Your task to perform on an android device: Open the calendar and show me this week's events? Image 0: 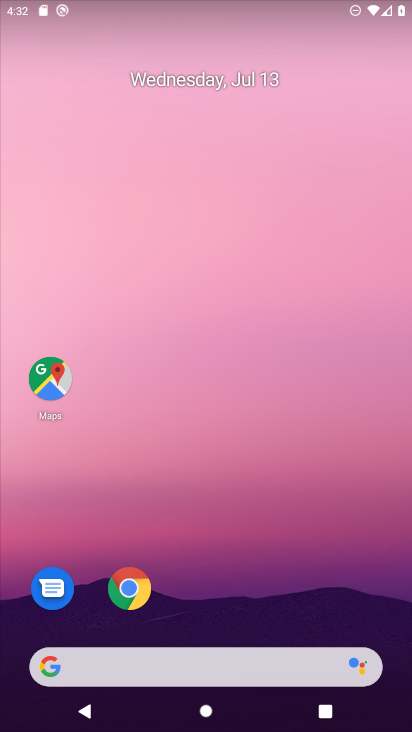
Step 0: drag from (266, 598) to (235, 252)
Your task to perform on an android device: Open the calendar and show me this week's events? Image 1: 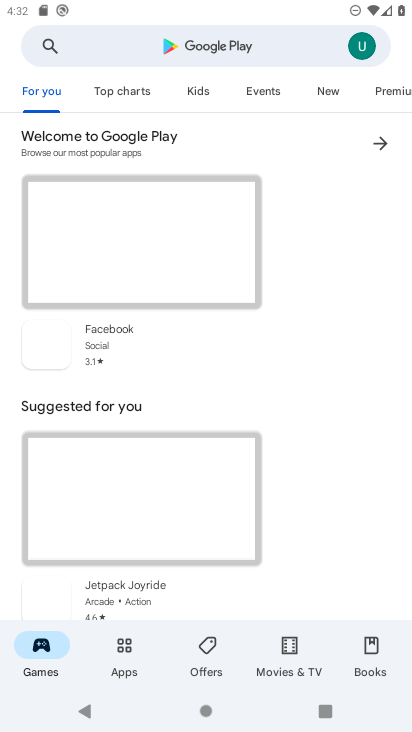
Step 1: press back button
Your task to perform on an android device: Open the calendar and show me this week's events? Image 2: 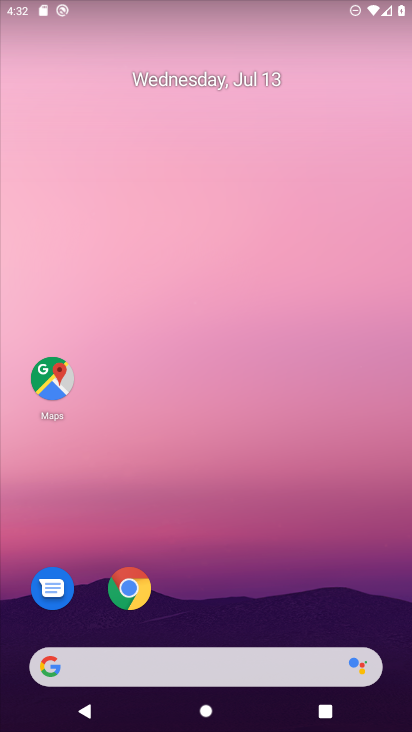
Step 2: click (249, 43)
Your task to perform on an android device: Open the calendar and show me this week's events? Image 3: 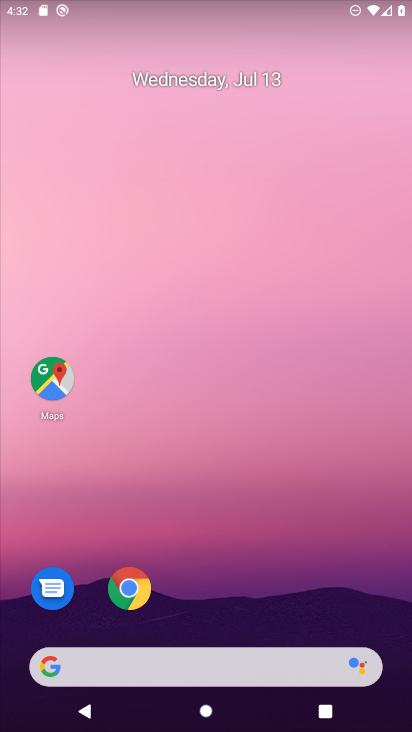
Step 3: drag from (242, 568) to (161, 148)
Your task to perform on an android device: Open the calendar and show me this week's events? Image 4: 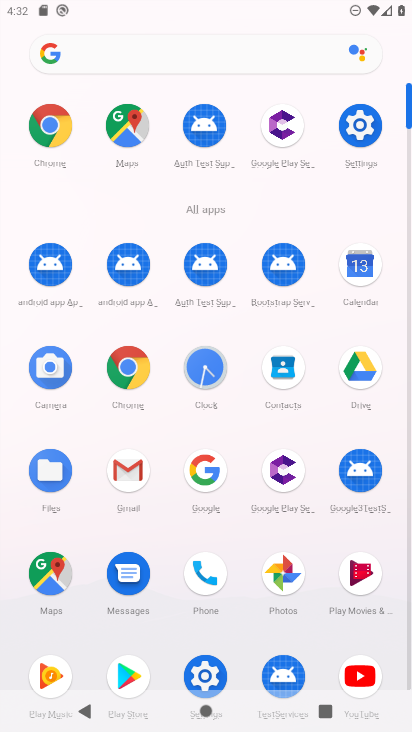
Step 4: click (348, 247)
Your task to perform on an android device: Open the calendar and show me this week's events? Image 5: 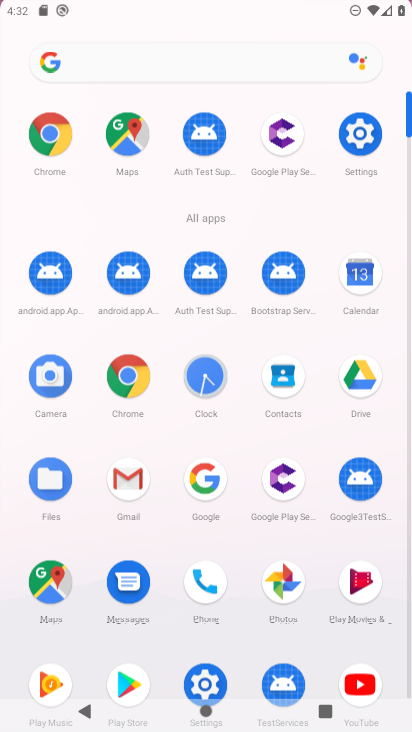
Step 5: click (357, 265)
Your task to perform on an android device: Open the calendar and show me this week's events? Image 6: 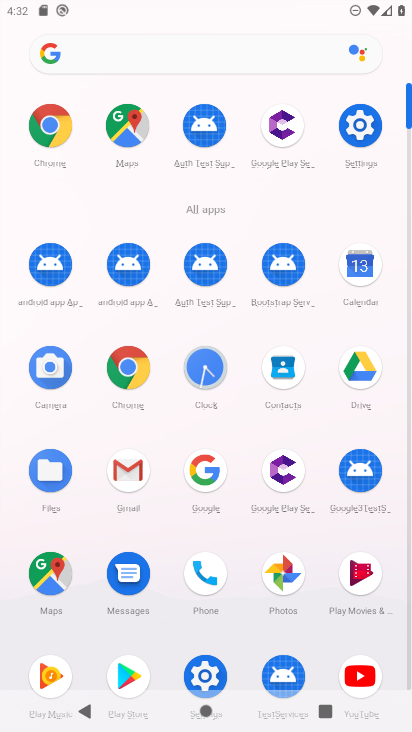
Step 6: drag from (350, 236) to (365, 273)
Your task to perform on an android device: Open the calendar and show me this week's events? Image 7: 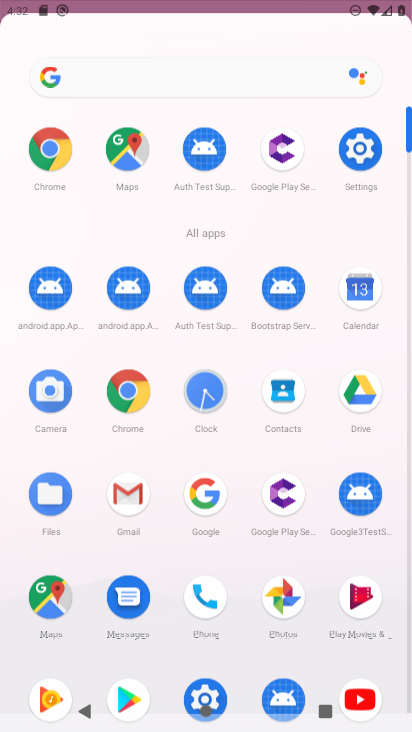
Step 7: click (365, 277)
Your task to perform on an android device: Open the calendar and show me this week's events? Image 8: 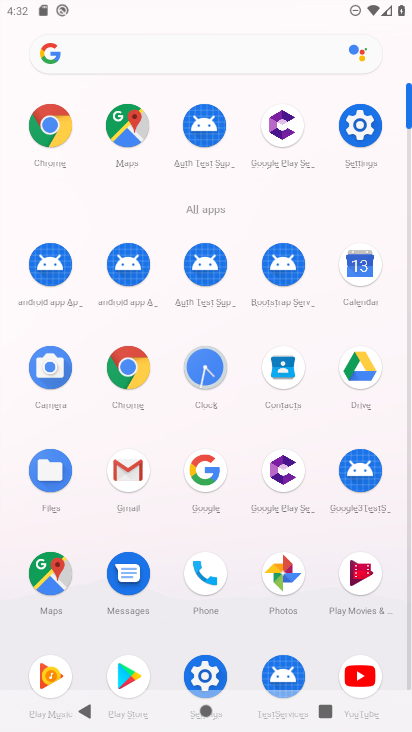
Step 8: click (361, 269)
Your task to perform on an android device: Open the calendar and show me this week's events? Image 9: 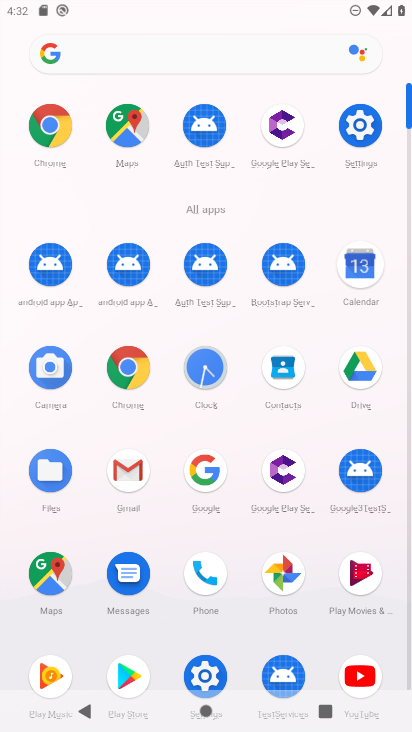
Step 9: click (354, 262)
Your task to perform on an android device: Open the calendar and show me this week's events? Image 10: 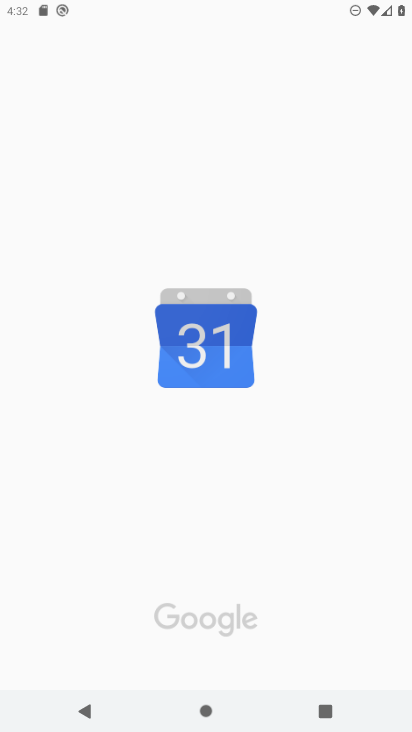
Step 10: click (361, 267)
Your task to perform on an android device: Open the calendar and show me this week's events? Image 11: 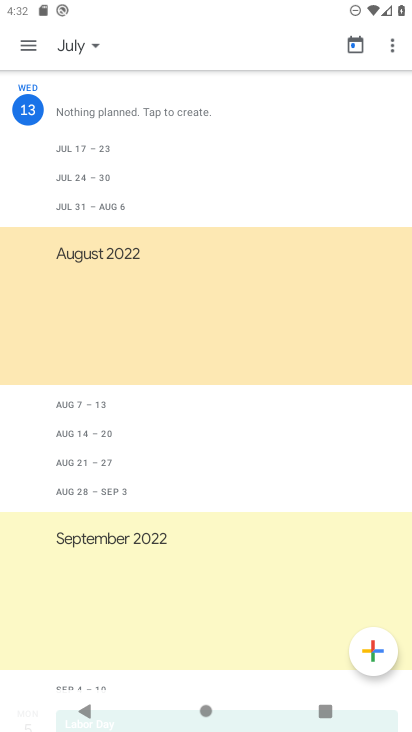
Step 11: click (96, 46)
Your task to perform on an android device: Open the calendar and show me this week's events? Image 12: 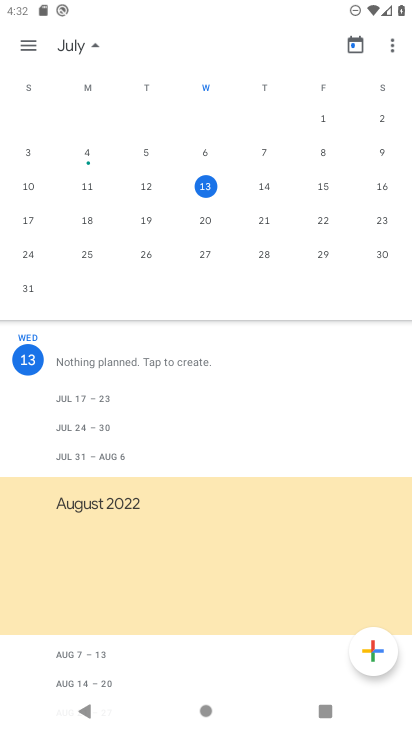
Step 12: click (261, 188)
Your task to perform on an android device: Open the calendar and show me this week's events? Image 13: 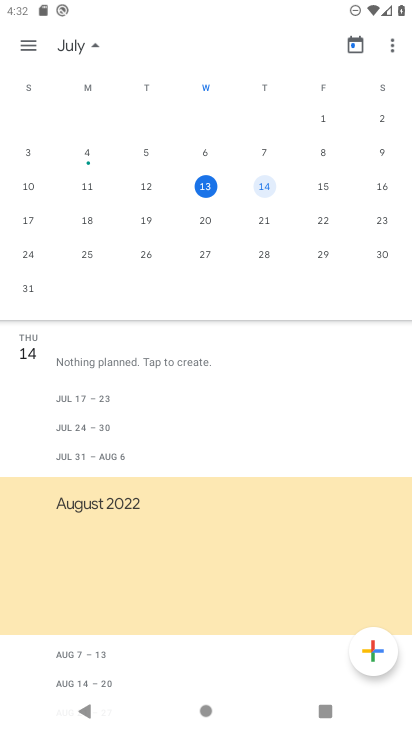
Step 13: click (261, 188)
Your task to perform on an android device: Open the calendar and show me this week's events? Image 14: 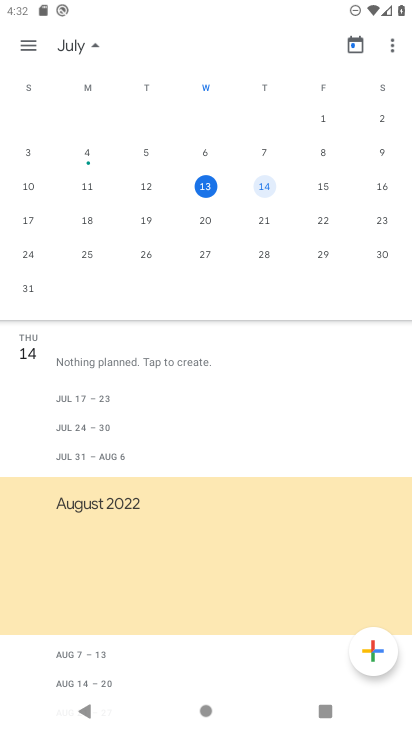
Step 14: click (261, 188)
Your task to perform on an android device: Open the calendar and show me this week's events? Image 15: 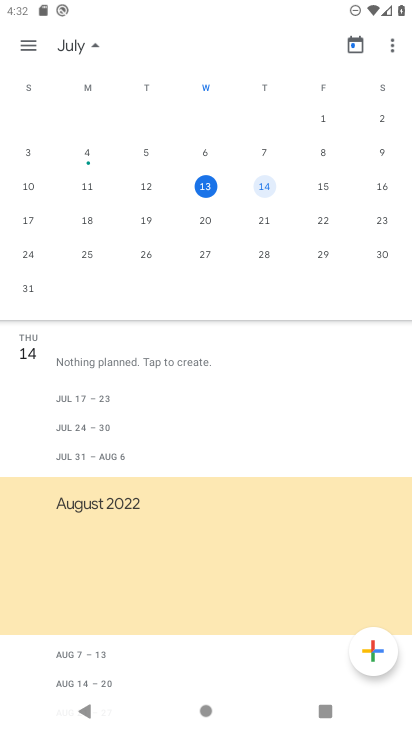
Step 15: click (330, 183)
Your task to perform on an android device: Open the calendar and show me this week's events? Image 16: 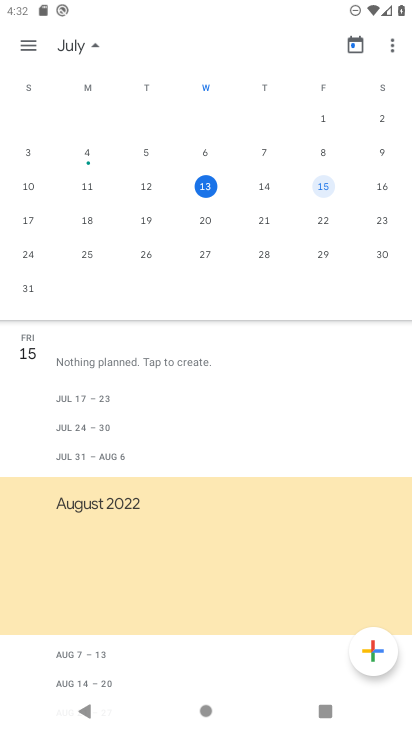
Step 16: click (330, 185)
Your task to perform on an android device: Open the calendar and show me this week's events? Image 17: 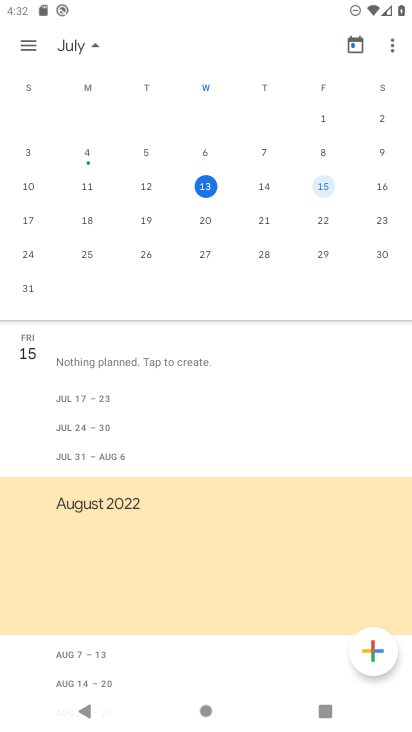
Step 17: click (330, 185)
Your task to perform on an android device: Open the calendar and show me this week's events? Image 18: 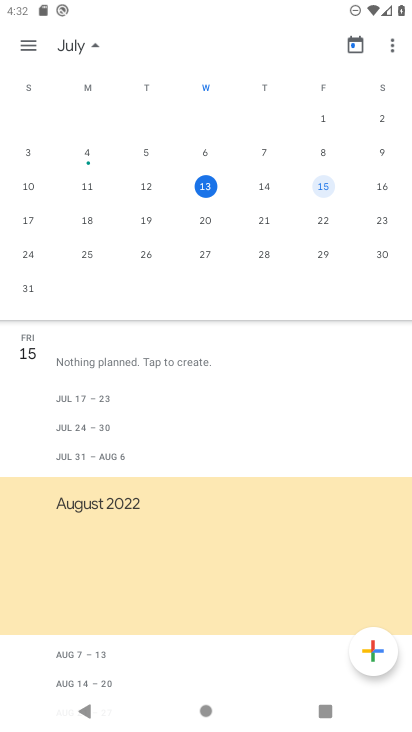
Step 18: task complete